Your task to perform on an android device: Open Google Chrome Image 0: 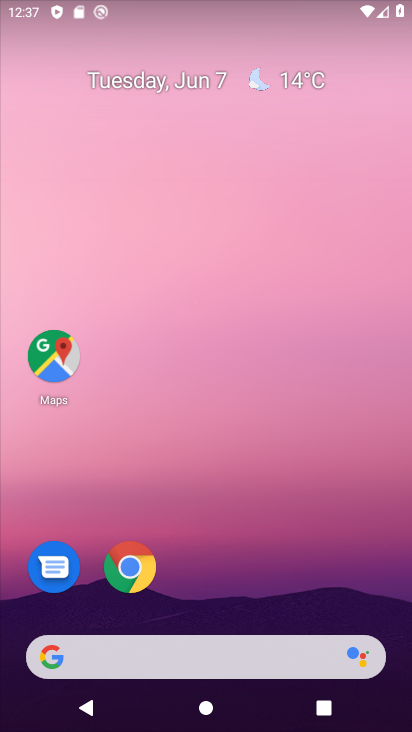
Step 0: click (142, 565)
Your task to perform on an android device: Open Google Chrome Image 1: 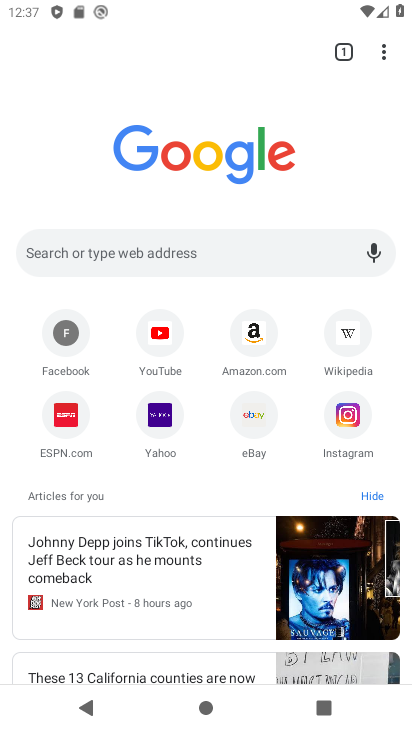
Step 1: task complete